Your task to perform on an android device: change alarm snooze length Image 0: 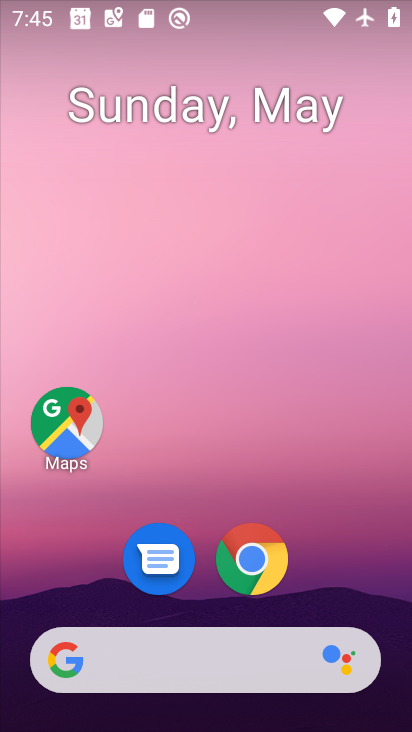
Step 0: press home button
Your task to perform on an android device: change alarm snooze length Image 1: 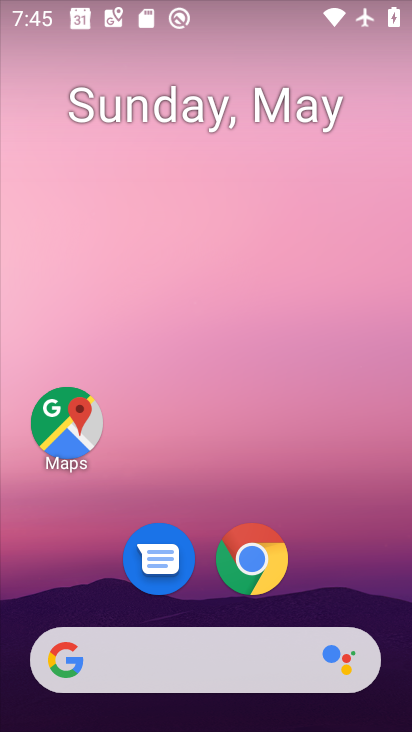
Step 1: drag from (246, 564) to (344, 149)
Your task to perform on an android device: change alarm snooze length Image 2: 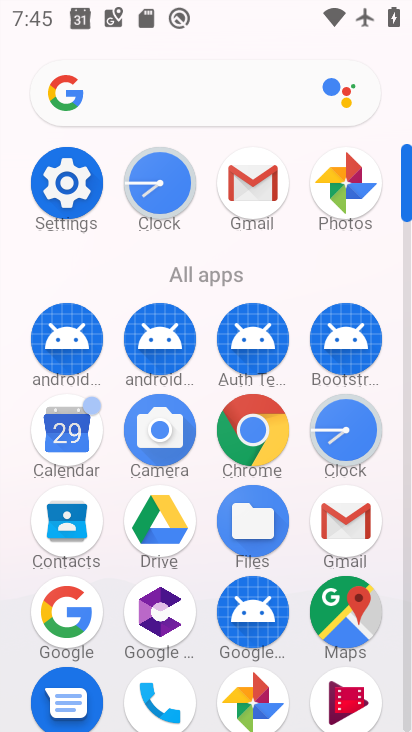
Step 2: click (344, 441)
Your task to perform on an android device: change alarm snooze length Image 3: 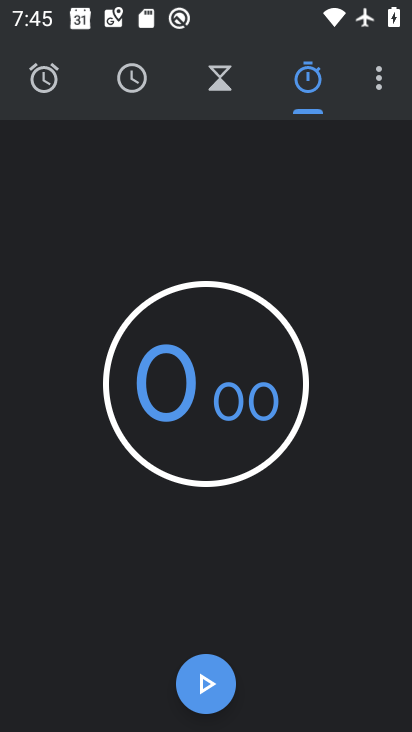
Step 3: click (48, 78)
Your task to perform on an android device: change alarm snooze length Image 4: 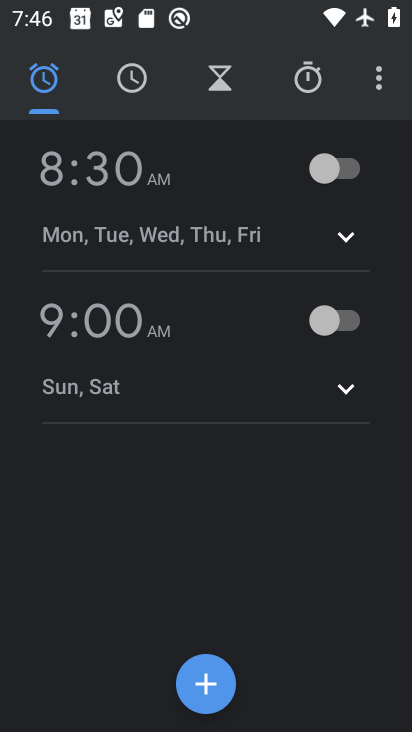
Step 4: click (345, 168)
Your task to perform on an android device: change alarm snooze length Image 5: 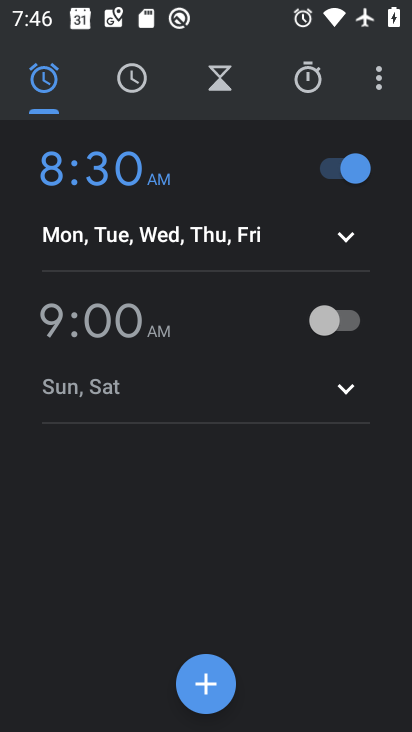
Step 5: task complete